Your task to perform on an android device: open app "Expedia: Hotels, Flights & Car" (install if not already installed) and go to login screen Image 0: 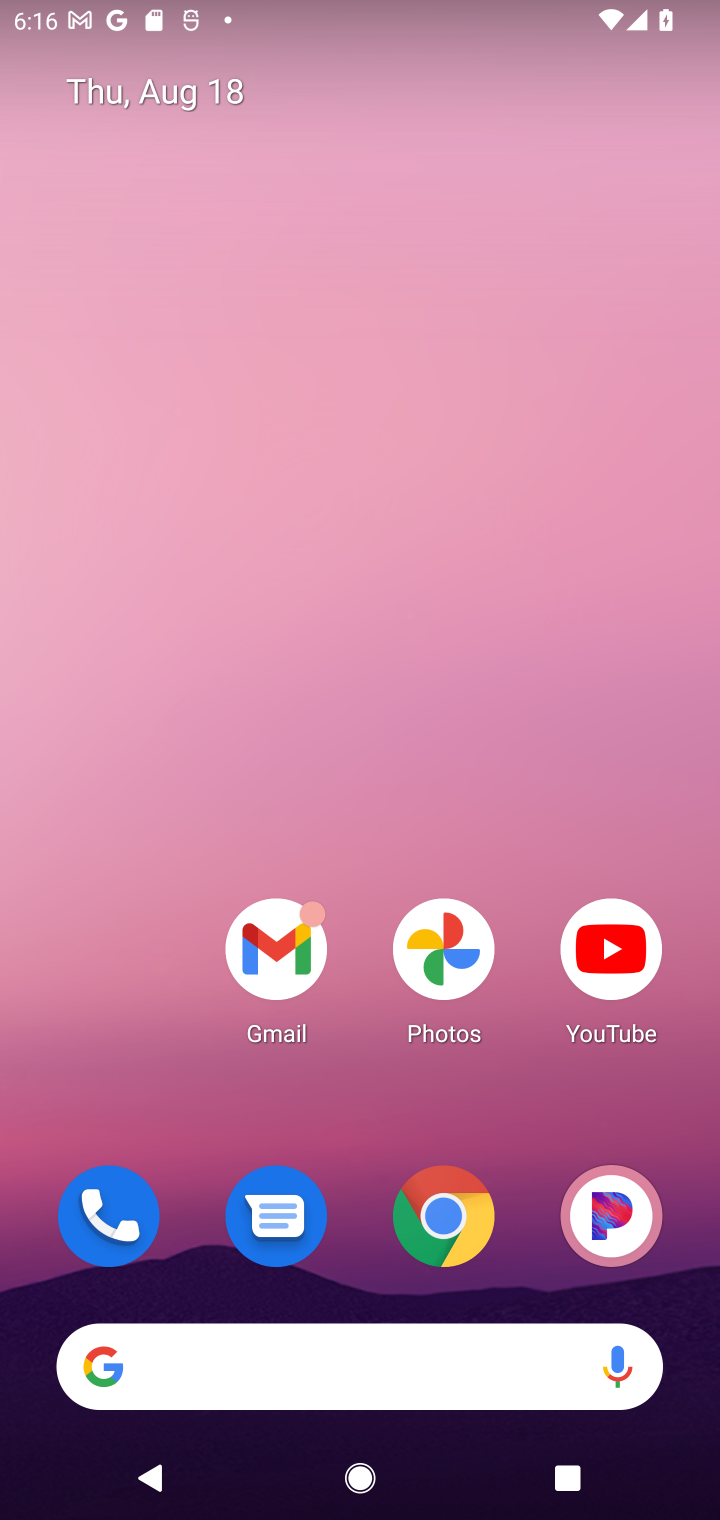
Step 0: drag from (540, 1161) to (484, 214)
Your task to perform on an android device: open app "Expedia: Hotels, Flights & Car" (install if not already installed) and go to login screen Image 1: 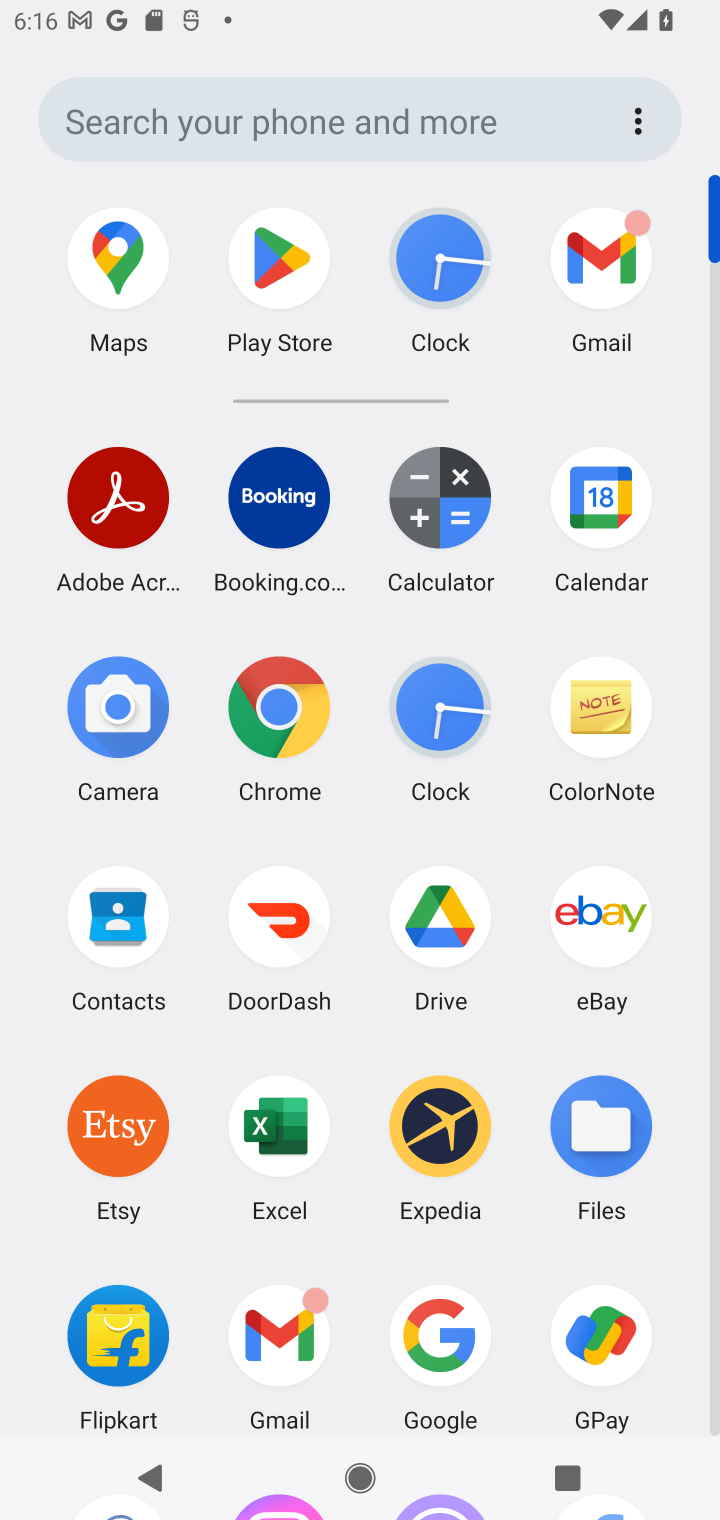
Step 1: drag from (529, 1258) to (514, 571)
Your task to perform on an android device: open app "Expedia: Hotels, Flights & Car" (install if not already installed) and go to login screen Image 2: 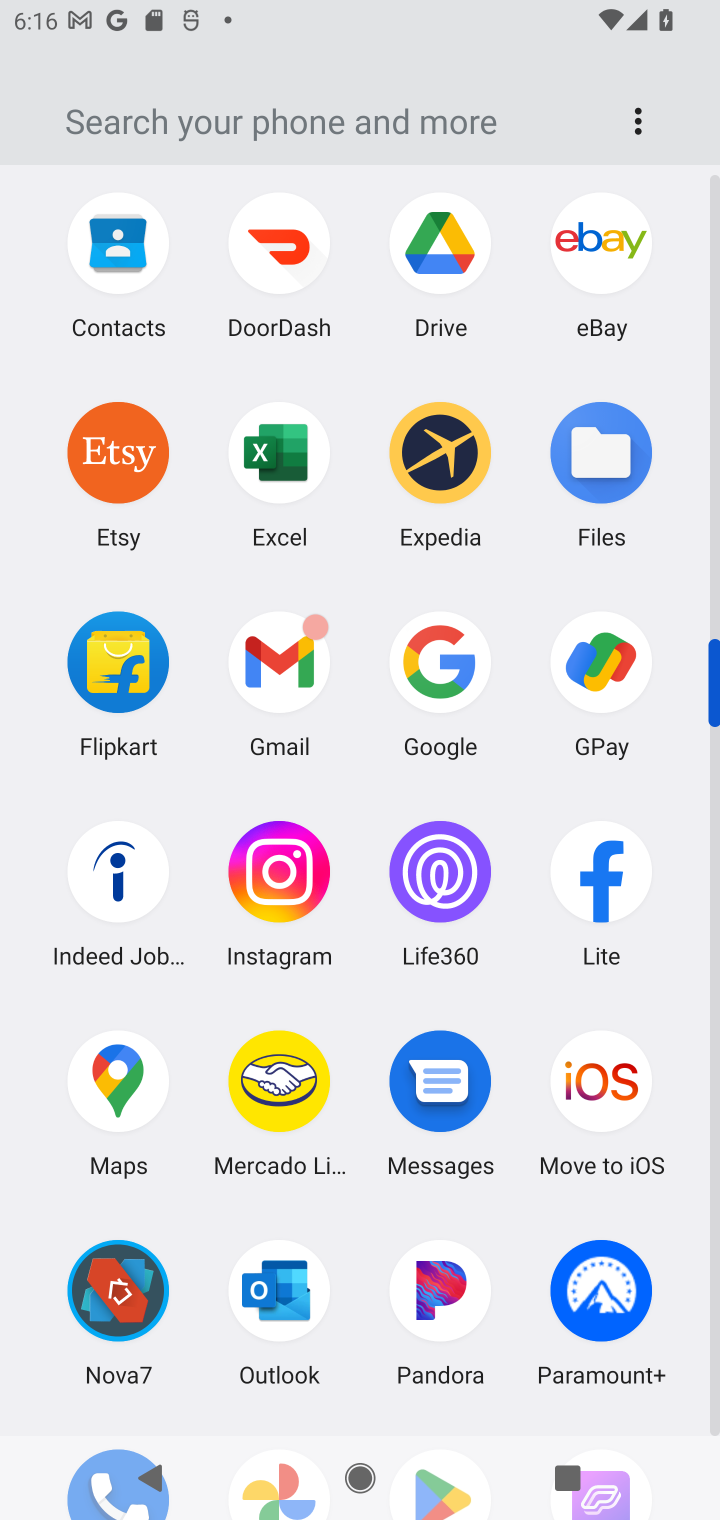
Step 2: drag from (526, 1258) to (527, 570)
Your task to perform on an android device: open app "Expedia: Hotels, Flights & Car" (install if not already installed) and go to login screen Image 3: 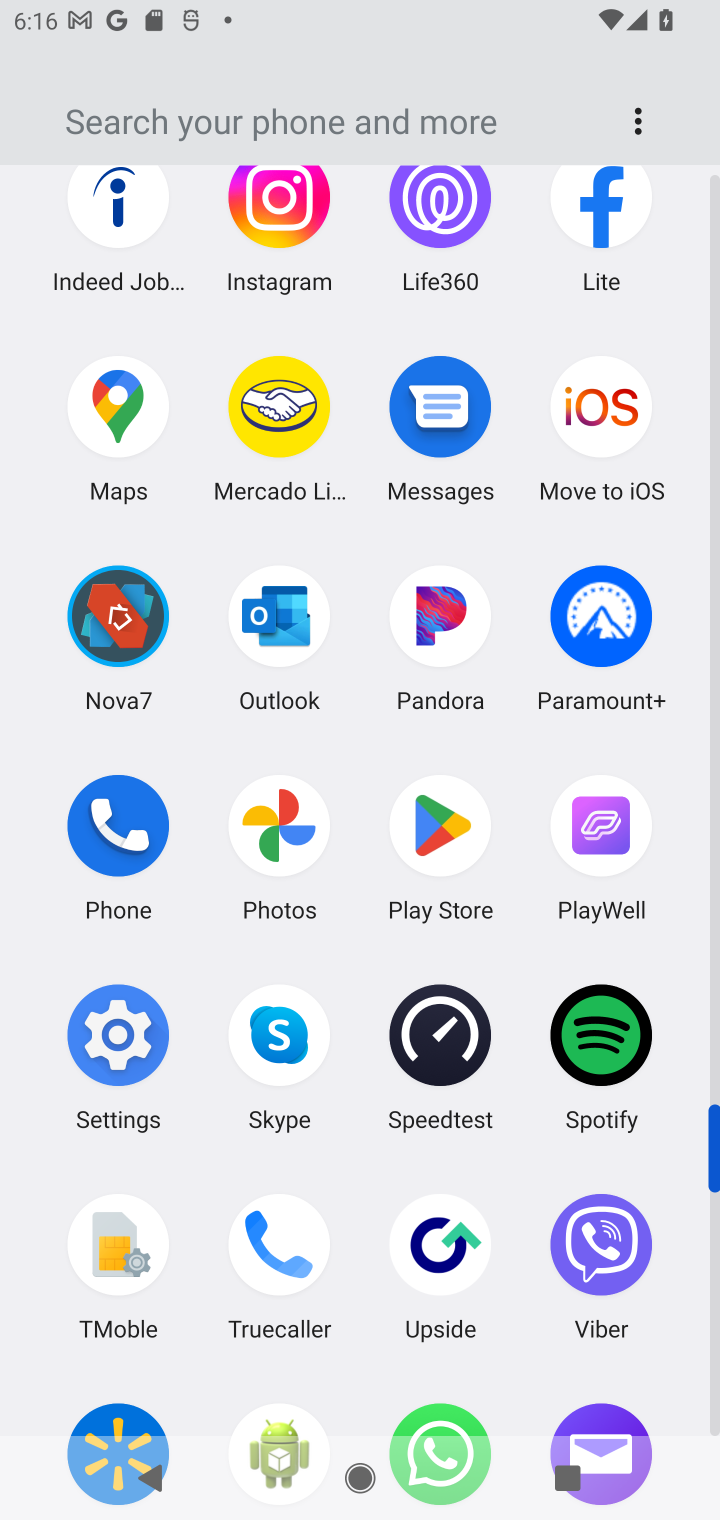
Step 3: click (442, 827)
Your task to perform on an android device: open app "Expedia: Hotels, Flights & Car" (install if not already installed) and go to login screen Image 4: 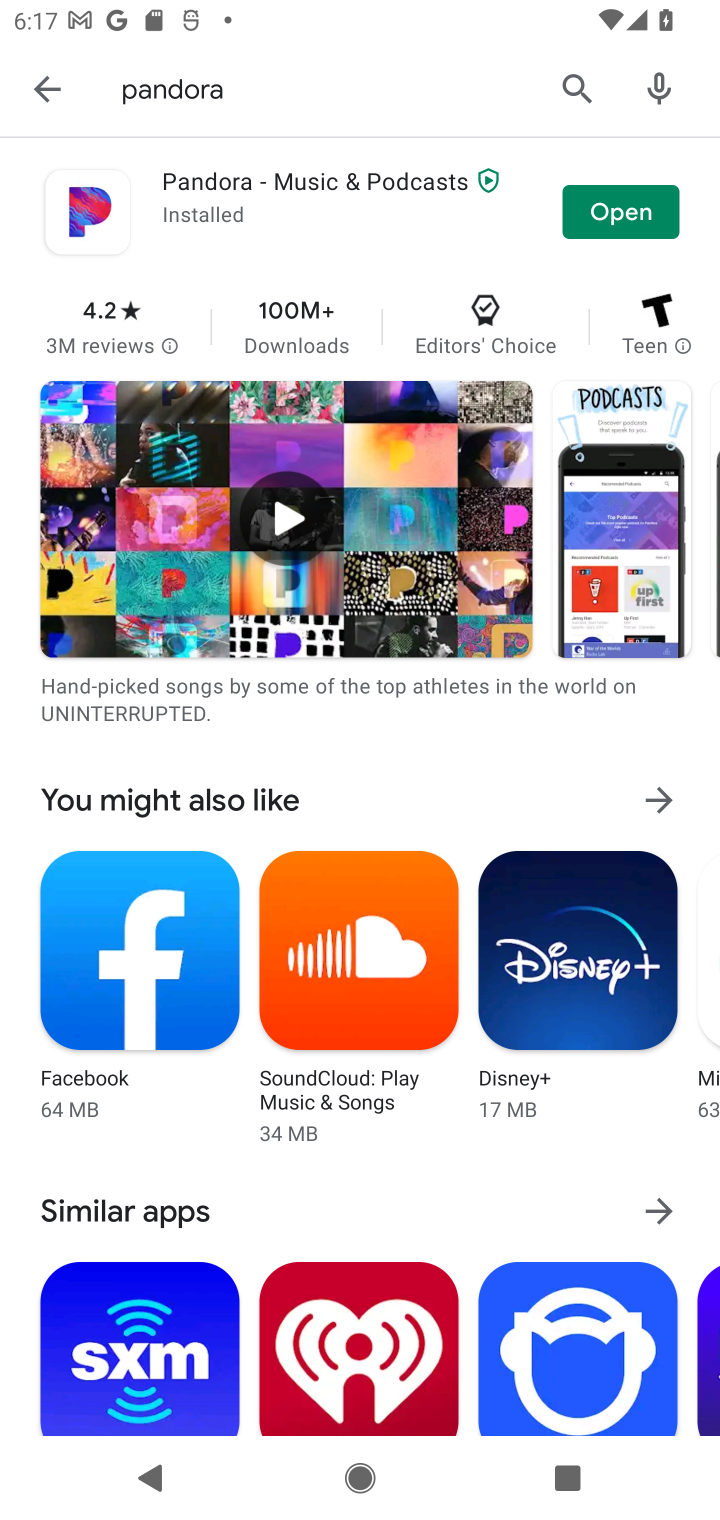
Step 4: click (575, 80)
Your task to perform on an android device: open app "Expedia: Hotels, Flights & Car" (install if not already installed) and go to login screen Image 5: 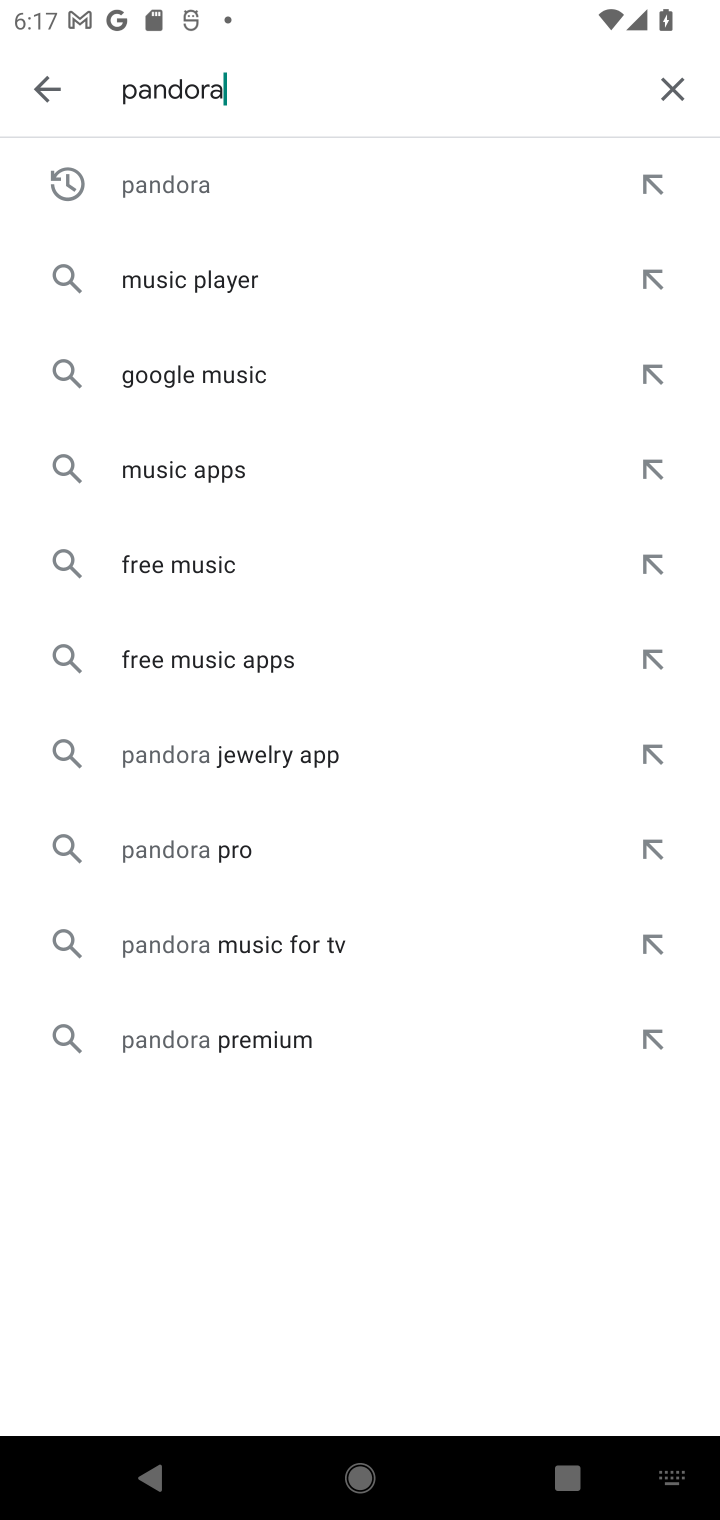
Step 5: click (665, 86)
Your task to perform on an android device: open app "Expedia: Hotels, Flights & Car" (install if not already installed) and go to login screen Image 6: 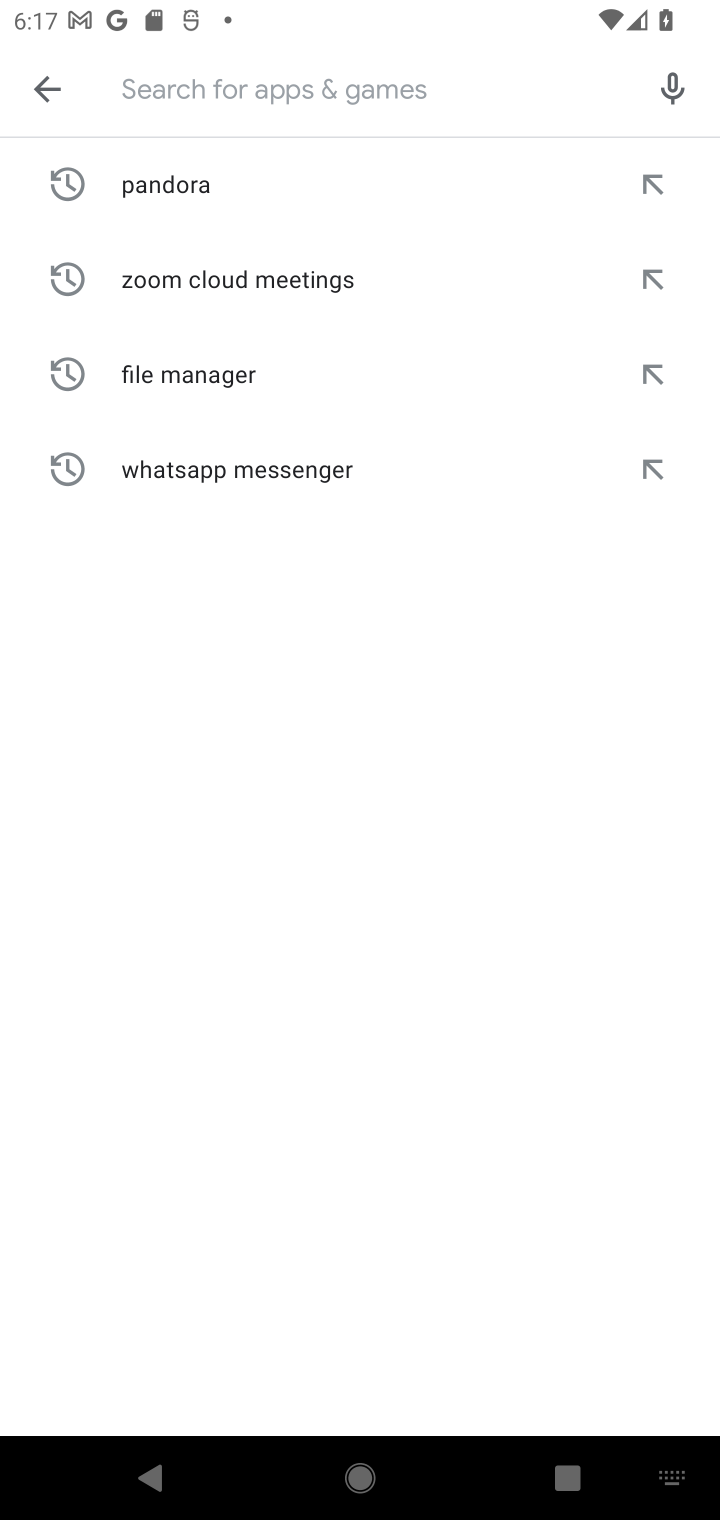
Step 6: type "Expedia: Hotels, Flights & Car"
Your task to perform on an android device: open app "Expedia: Hotels, Flights & Car" (install if not already installed) and go to login screen Image 7: 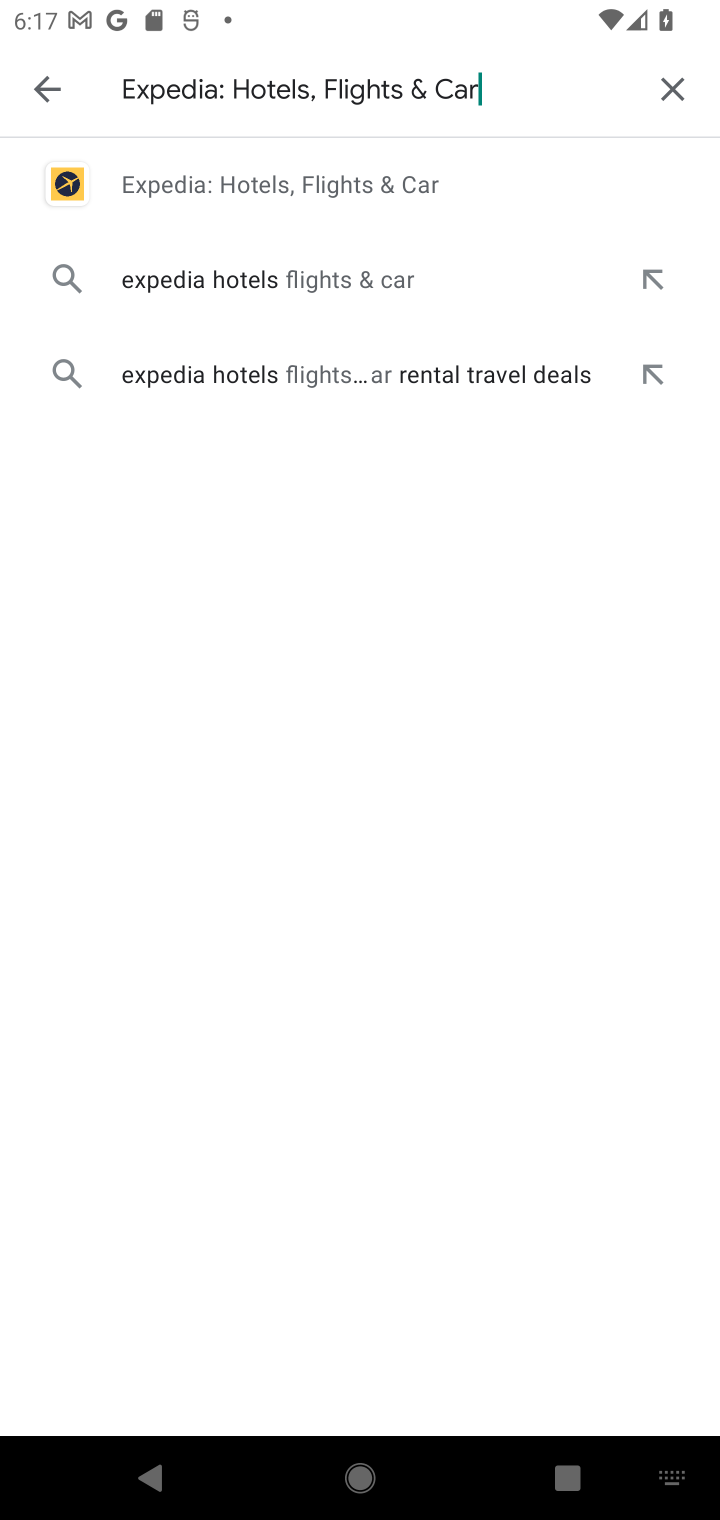
Step 7: click (219, 162)
Your task to perform on an android device: open app "Expedia: Hotels, Flights & Car" (install if not already installed) and go to login screen Image 8: 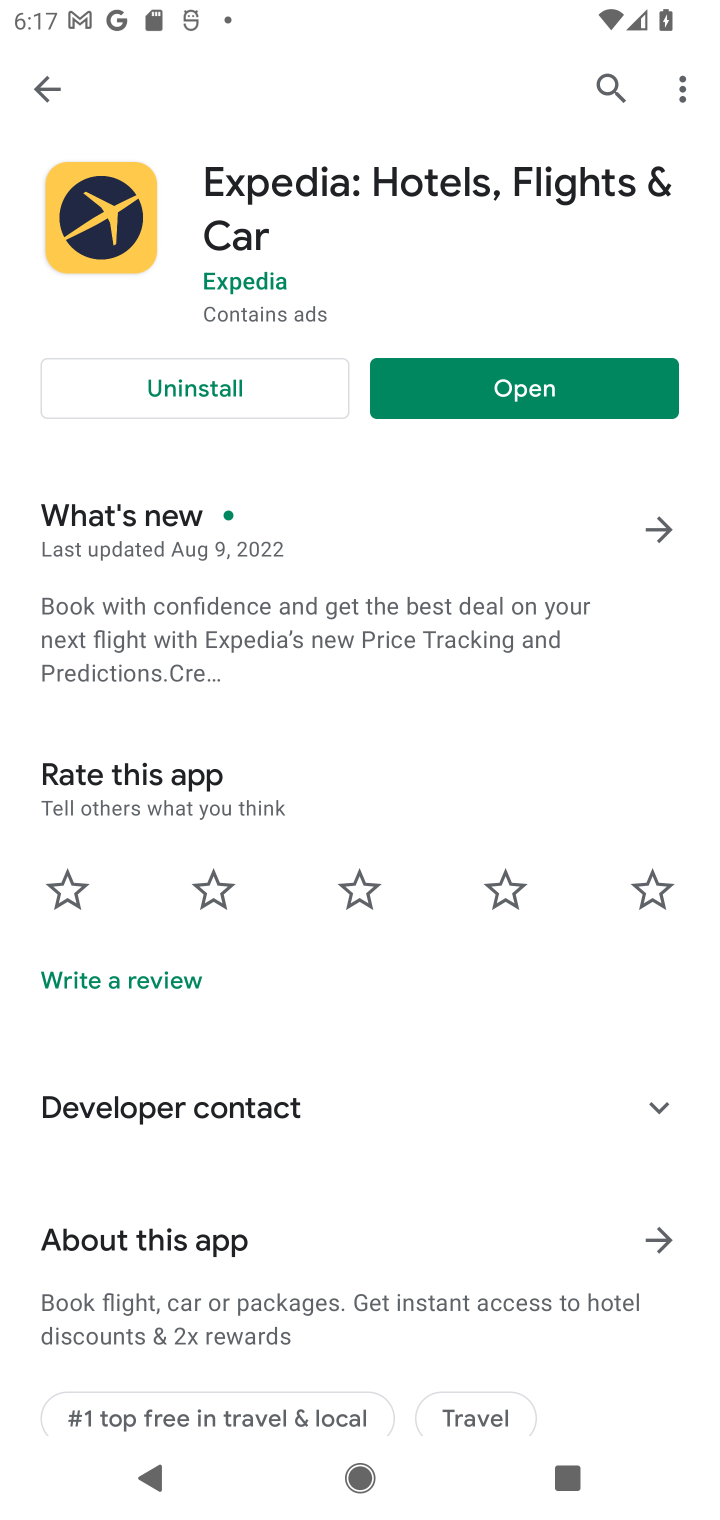
Step 8: click (512, 379)
Your task to perform on an android device: open app "Expedia: Hotels, Flights & Car" (install if not already installed) and go to login screen Image 9: 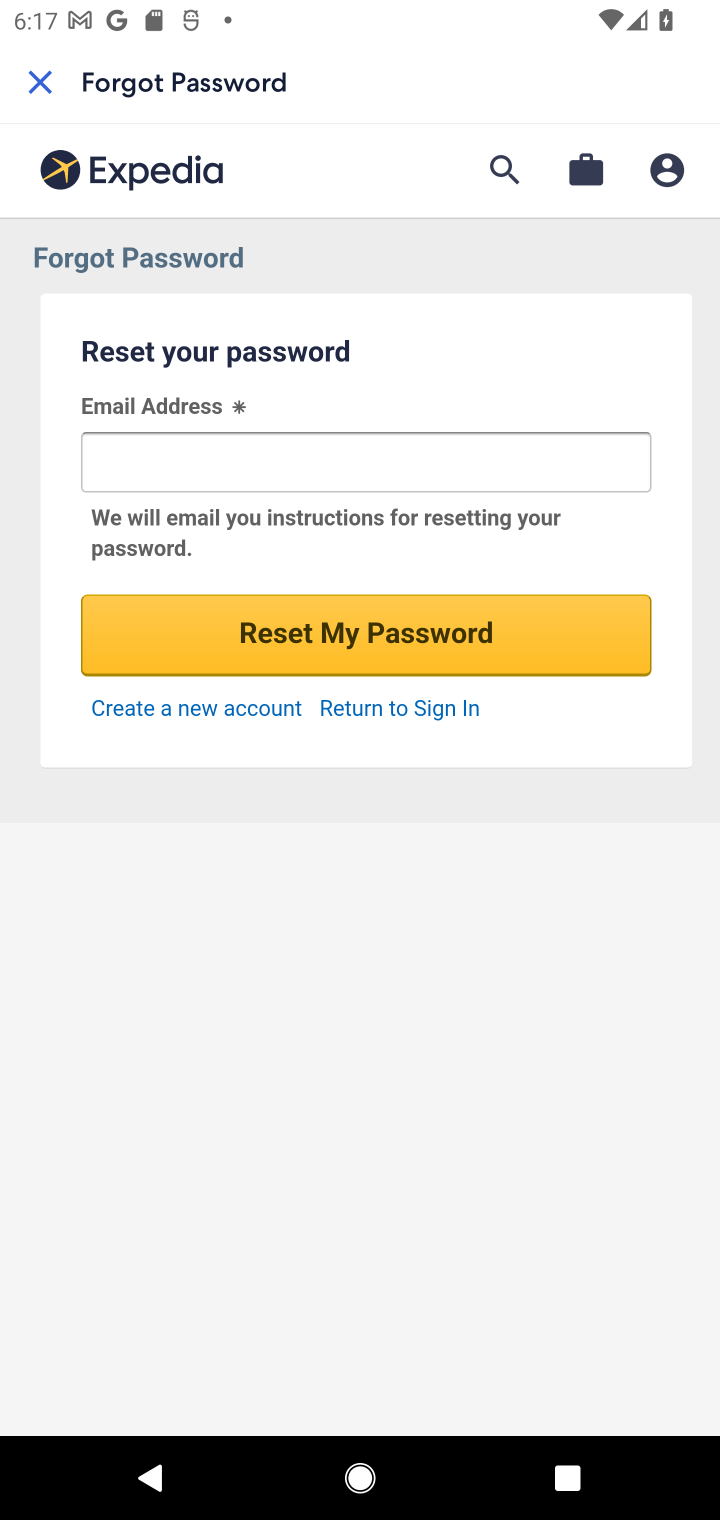
Step 9: task complete